Your task to perform on an android device: turn on bluetooth scan Image 0: 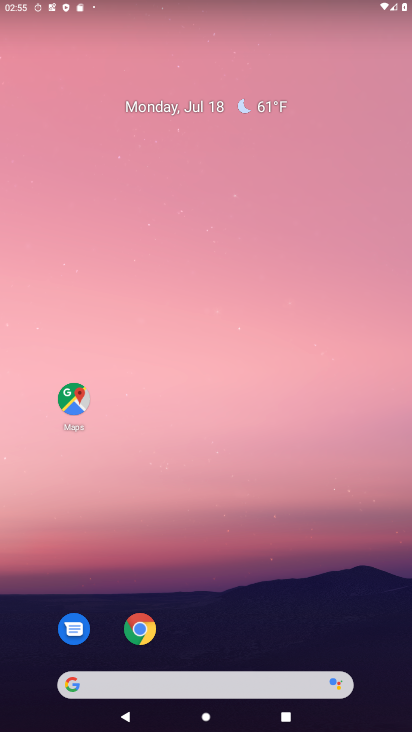
Step 0: drag from (249, 681) to (239, 141)
Your task to perform on an android device: turn on bluetooth scan Image 1: 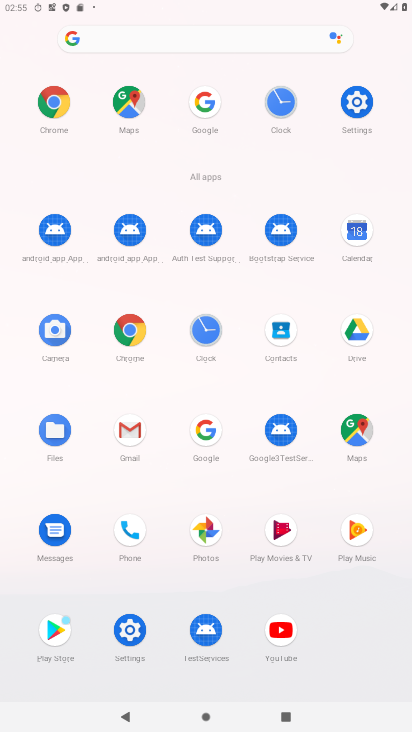
Step 1: click (356, 104)
Your task to perform on an android device: turn on bluetooth scan Image 2: 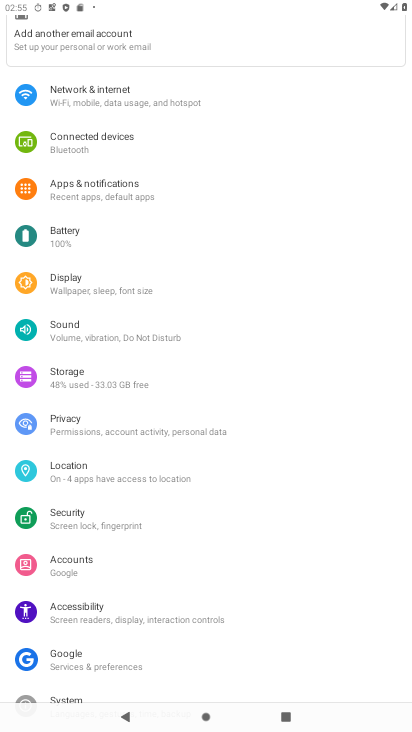
Step 2: click (79, 475)
Your task to perform on an android device: turn on bluetooth scan Image 3: 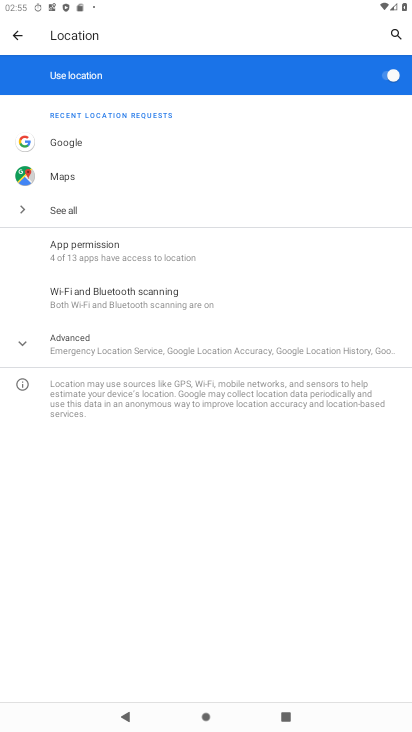
Step 3: click (152, 303)
Your task to perform on an android device: turn on bluetooth scan Image 4: 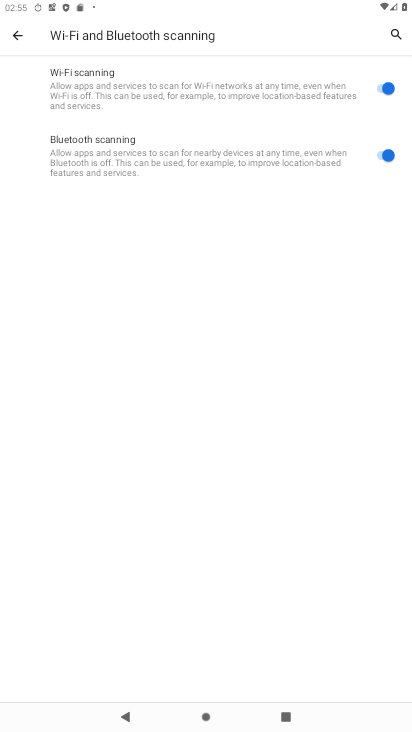
Step 4: task complete